Your task to perform on an android device: Find coffee shops on Maps Image 0: 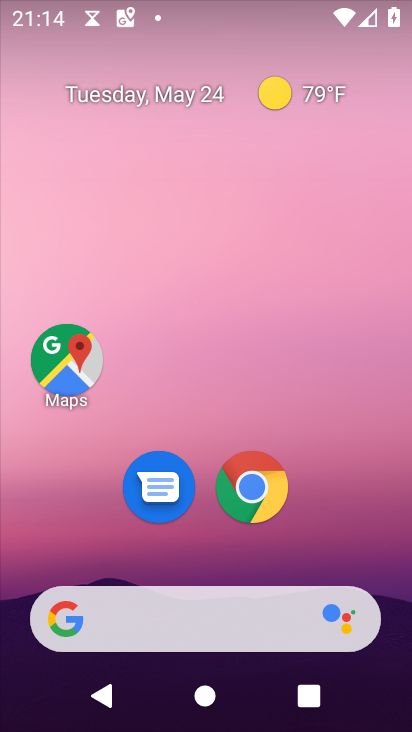
Step 0: click (89, 376)
Your task to perform on an android device: Find coffee shops on Maps Image 1: 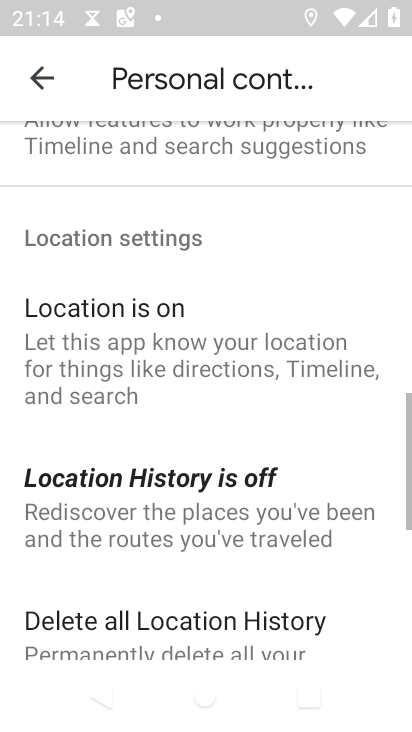
Step 1: click (30, 92)
Your task to perform on an android device: Find coffee shops on Maps Image 2: 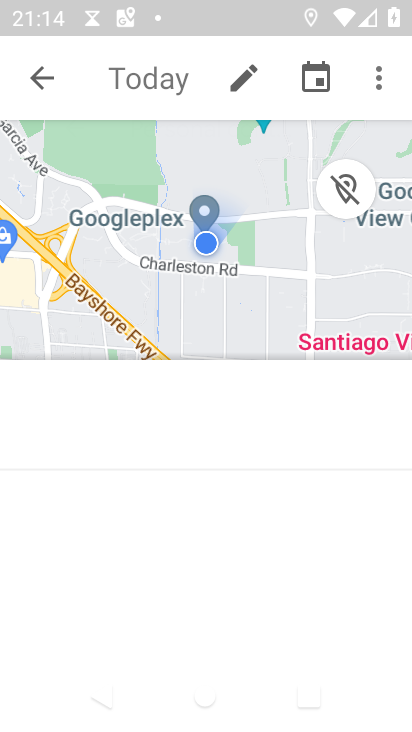
Step 2: click (30, 92)
Your task to perform on an android device: Find coffee shops on Maps Image 3: 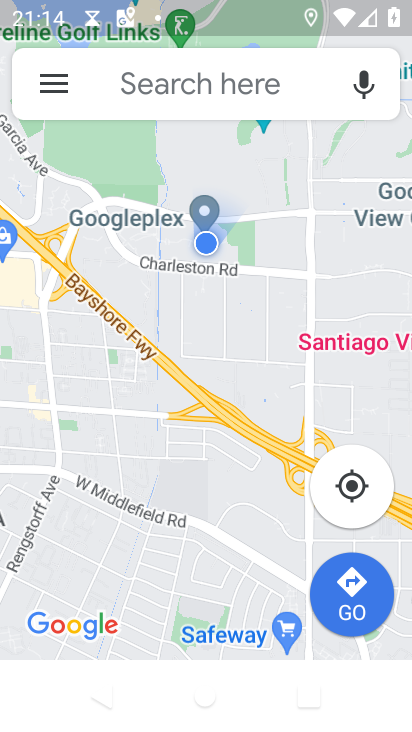
Step 3: click (237, 85)
Your task to perform on an android device: Find coffee shops on Maps Image 4: 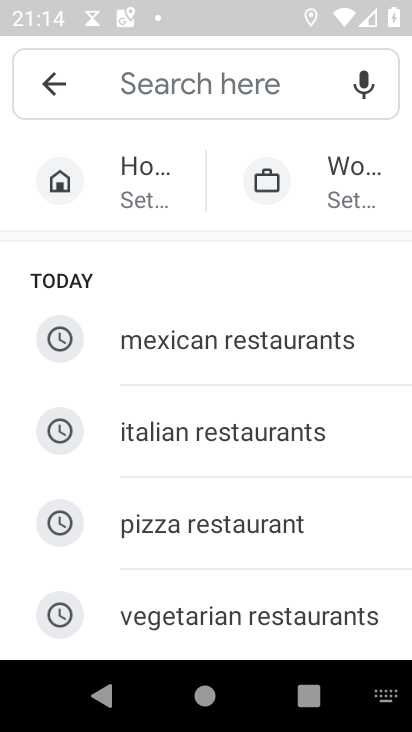
Step 4: type " coffee shops"
Your task to perform on an android device: Find coffee shops on Maps Image 5: 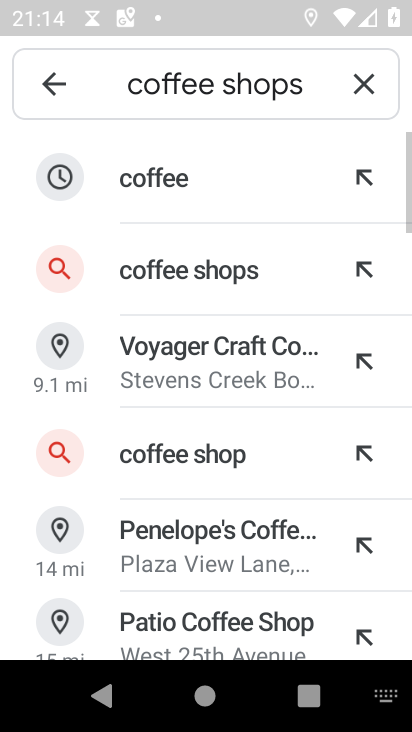
Step 5: click (164, 173)
Your task to perform on an android device: Find coffee shops on Maps Image 6: 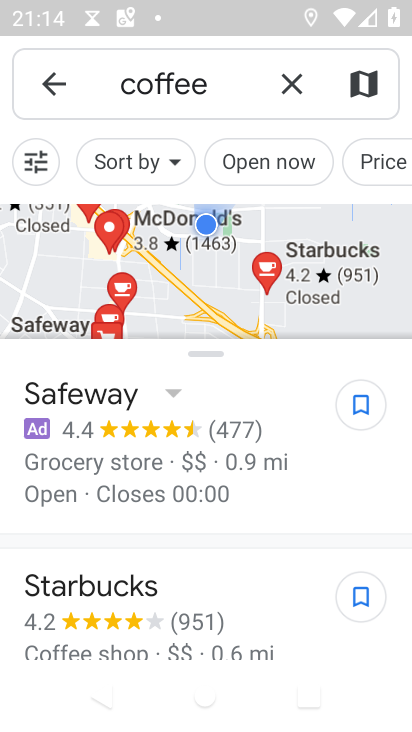
Step 6: task complete